Your task to perform on an android device: add a contact Image 0: 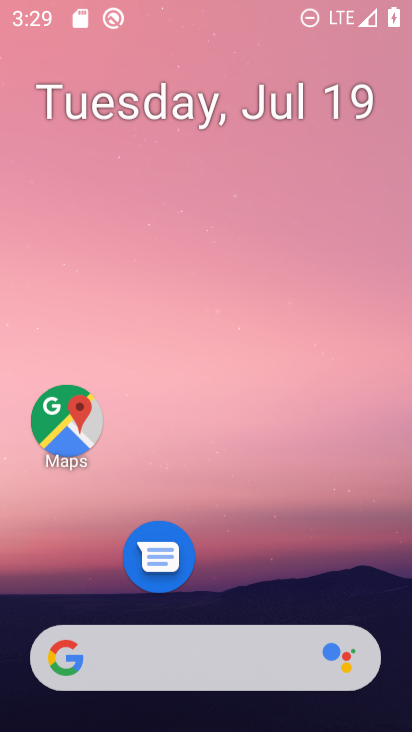
Step 0: click (231, 3)
Your task to perform on an android device: add a contact Image 1: 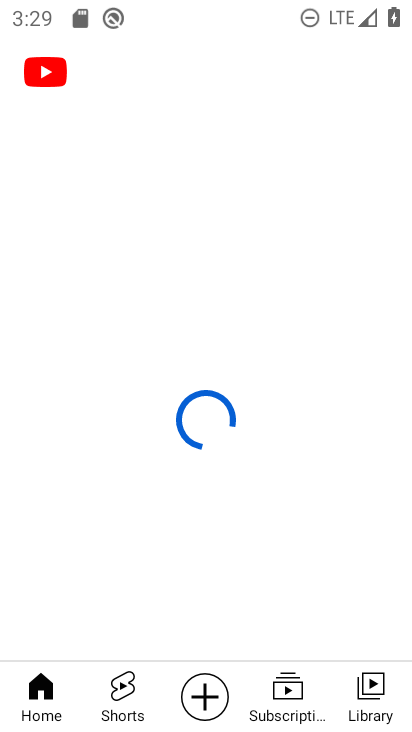
Step 1: press home button
Your task to perform on an android device: add a contact Image 2: 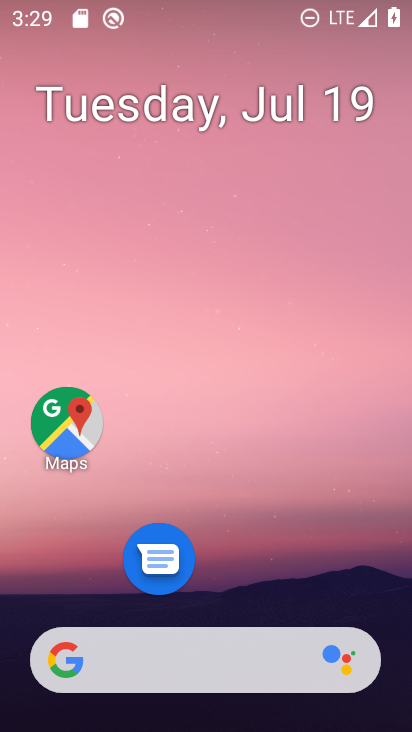
Step 2: drag from (261, 647) to (285, 36)
Your task to perform on an android device: add a contact Image 3: 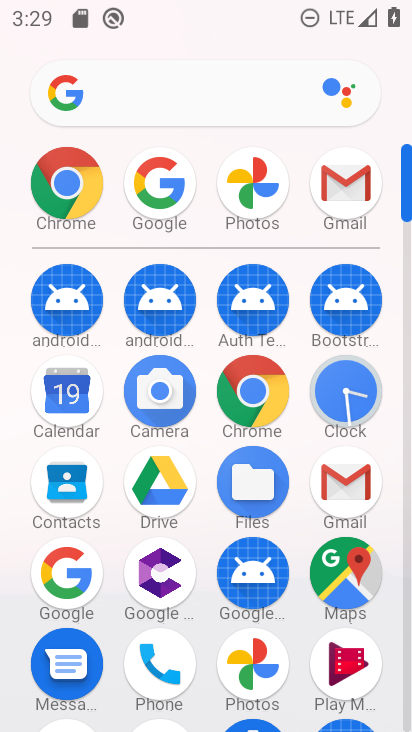
Step 3: click (71, 507)
Your task to perform on an android device: add a contact Image 4: 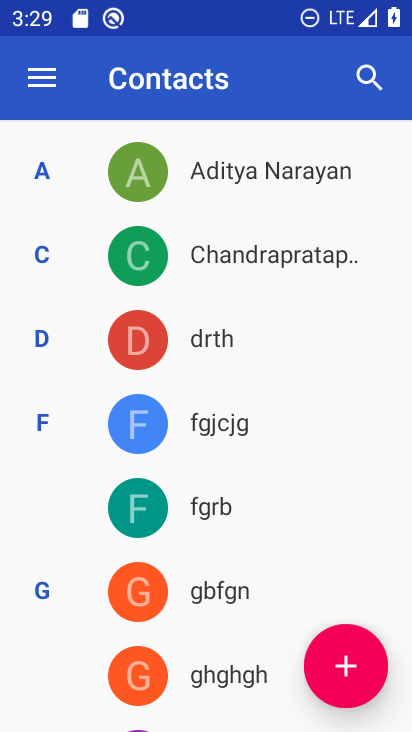
Step 4: click (360, 684)
Your task to perform on an android device: add a contact Image 5: 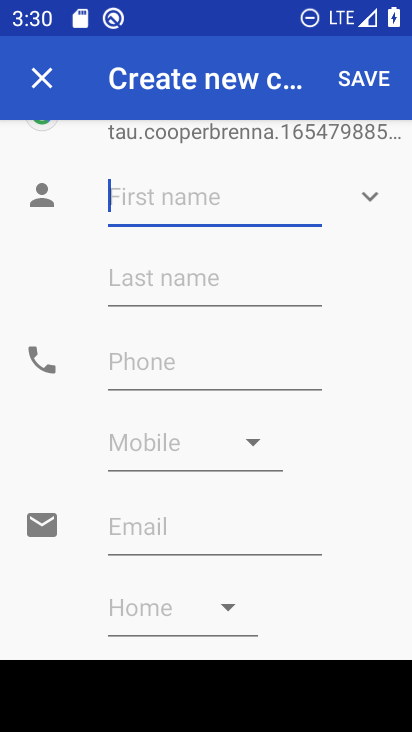
Step 5: type "ytrzxb"
Your task to perform on an android device: add a contact Image 6: 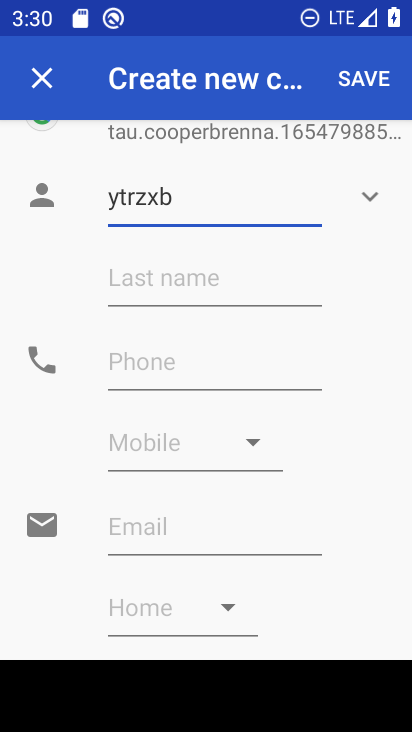
Step 6: click (180, 369)
Your task to perform on an android device: add a contact Image 7: 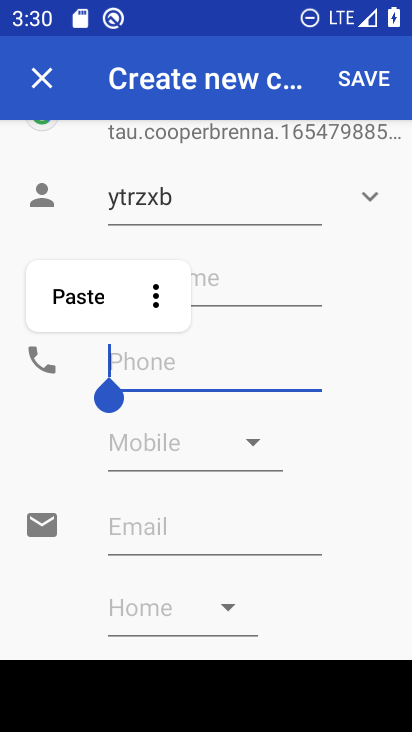
Step 7: type "87654356"
Your task to perform on an android device: add a contact Image 8: 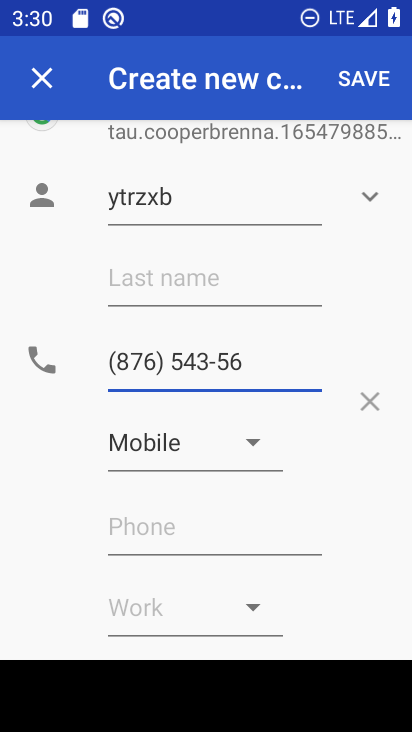
Step 8: click (373, 85)
Your task to perform on an android device: add a contact Image 9: 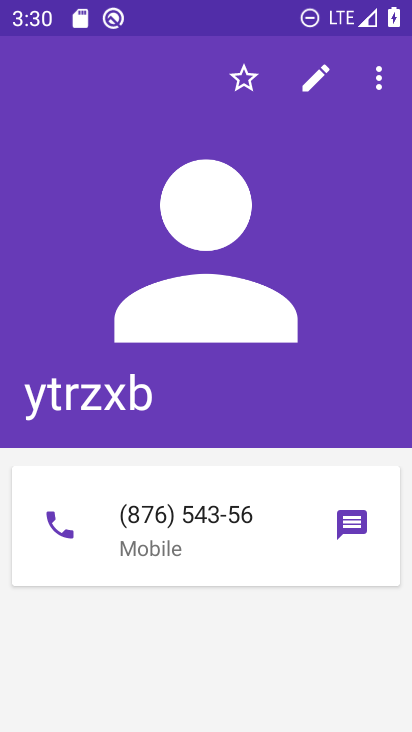
Step 9: task complete